Your task to perform on an android device: turn off notifications in google photos Image 0: 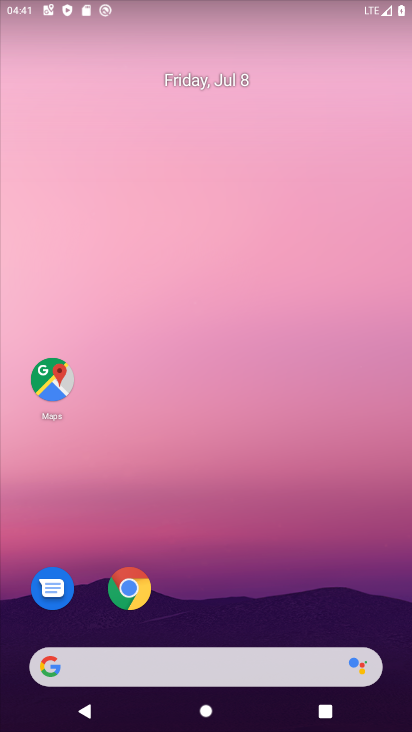
Step 0: click (45, 386)
Your task to perform on an android device: turn off notifications in google photos Image 1: 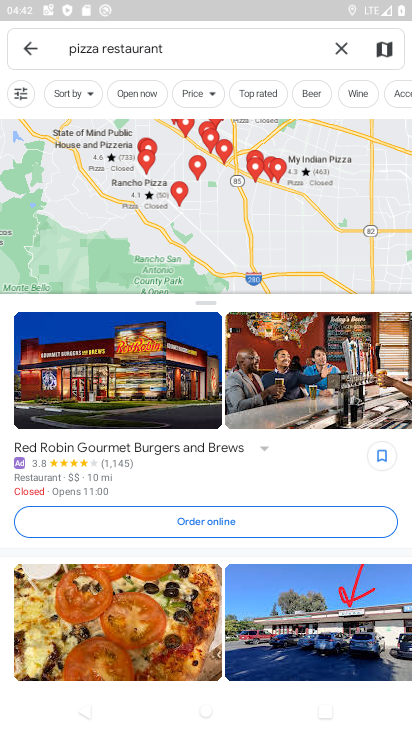
Step 1: press home button
Your task to perform on an android device: turn off notifications in google photos Image 2: 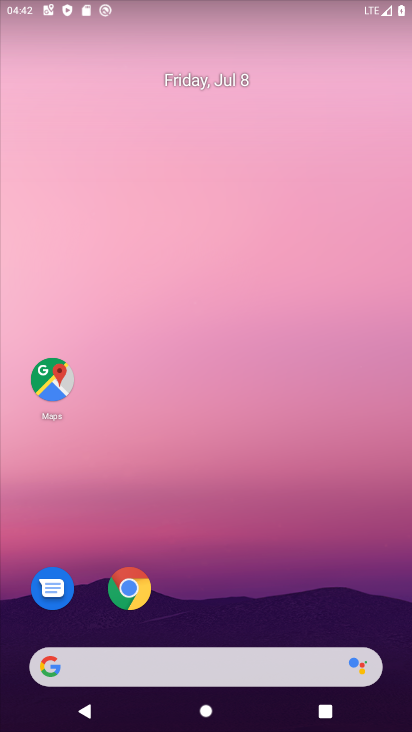
Step 2: drag from (188, 350) to (172, 114)
Your task to perform on an android device: turn off notifications in google photos Image 3: 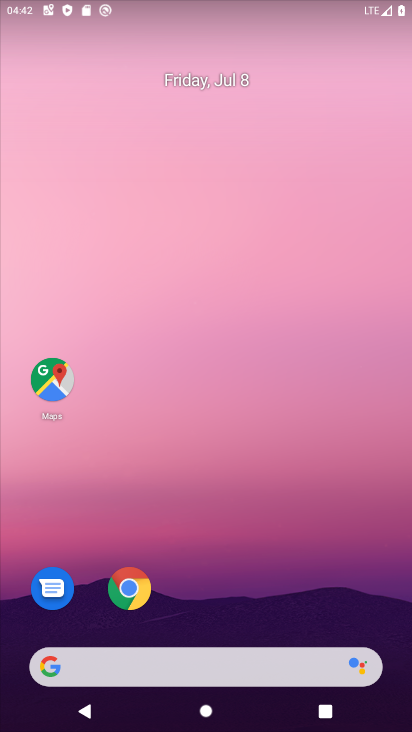
Step 3: drag from (221, 271) to (224, 232)
Your task to perform on an android device: turn off notifications in google photos Image 4: 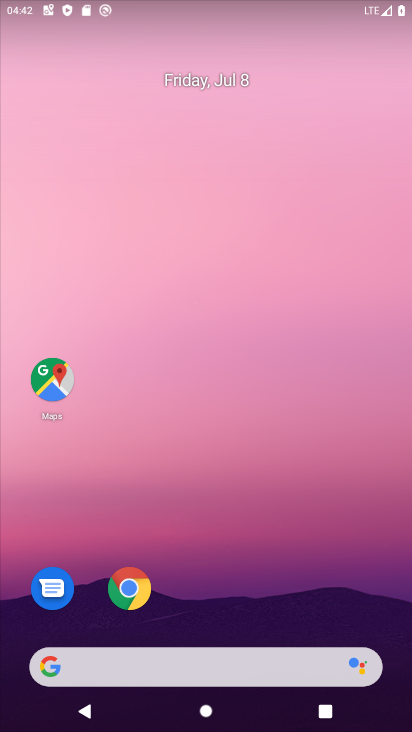
Step 4: click (174, 82)
Your task to perform on an android device: turn off notifications in google photos Image 5: 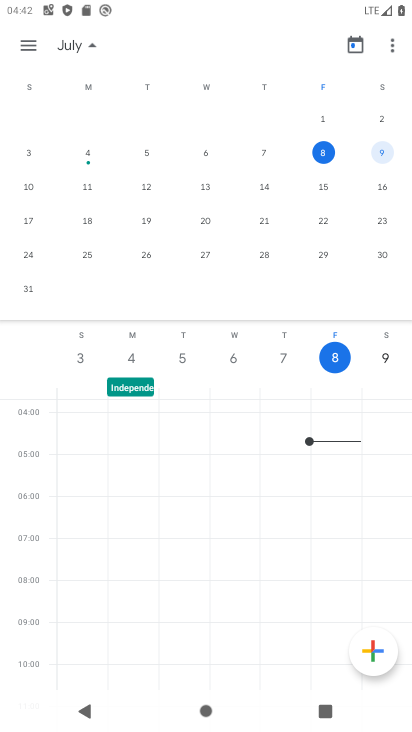
Step 5: press home button
Your task to perform on an android device: turn off notifications in google photos Image 6: 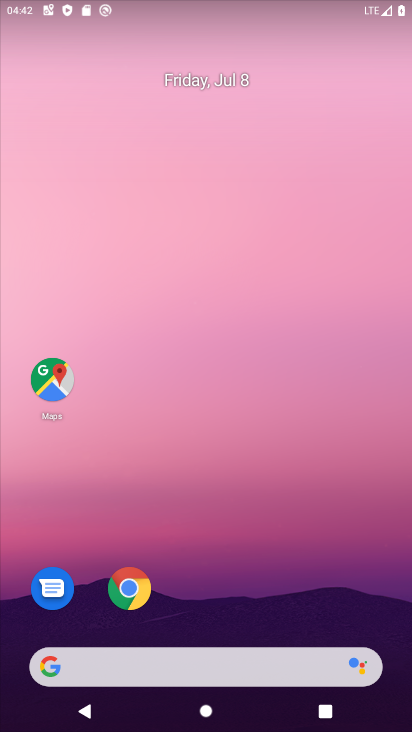
Step 6: drag from (199, 555) to (194, 33)
Your task to perform on an android device: turn off notifications in google photos Image 7: 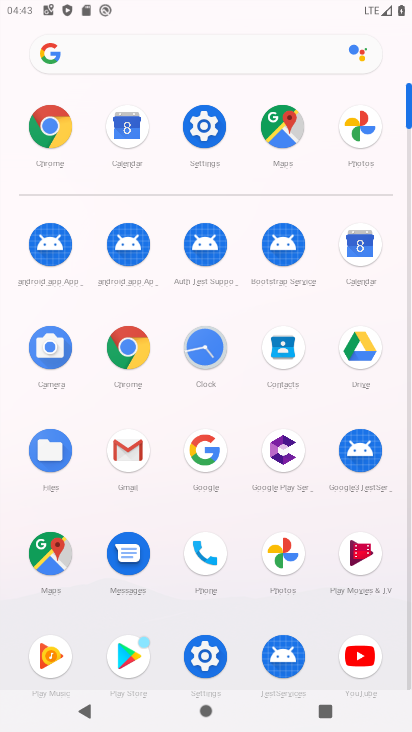
Step 7: click (204, 128)
Your task to perform on an android device: turn off notifications in google photos Image 8: 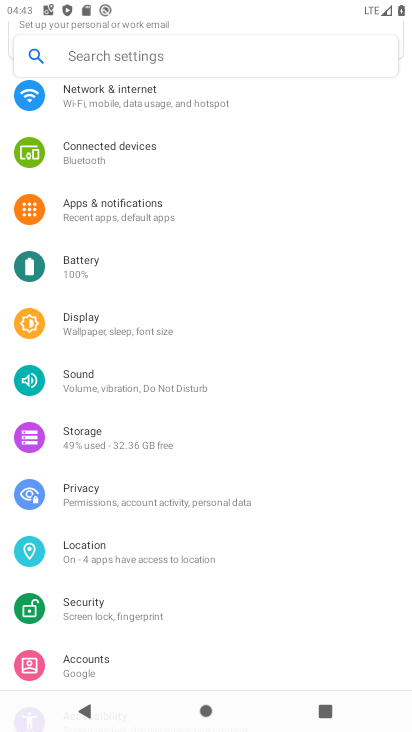
Step 8: press back button
Your task to perform on an android device: turn off notifications in google photos Image 9: 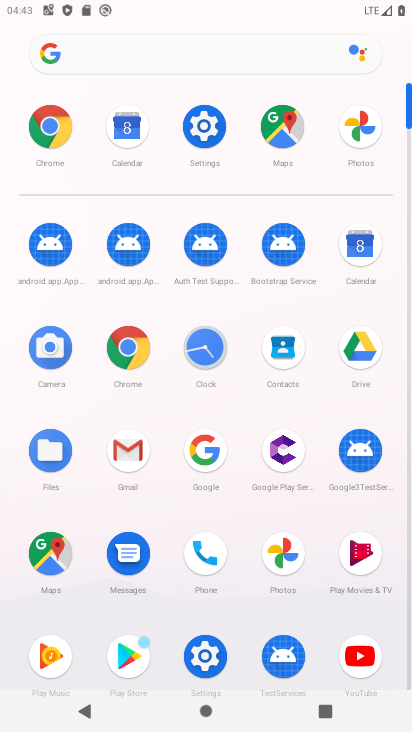
Step 9: click (284, 571)
Your task to perform on an android device: turn off notifications in google photos Image 10: 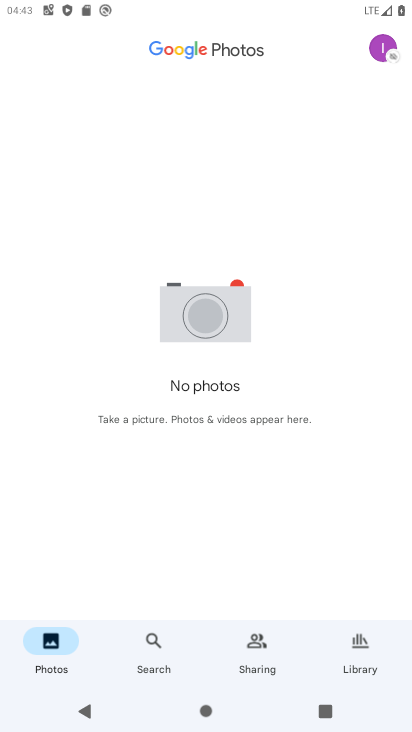
Step 10: click (38, 658)
Your task to perform on an android device: turn off notifications in google photos Image 11: 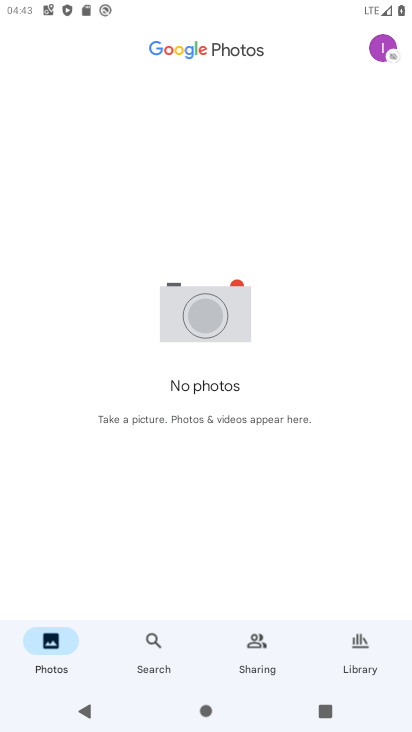
Step 11: click (382, 46)
Your task to perform on an android device: turn off notifications in google photos Image 12: 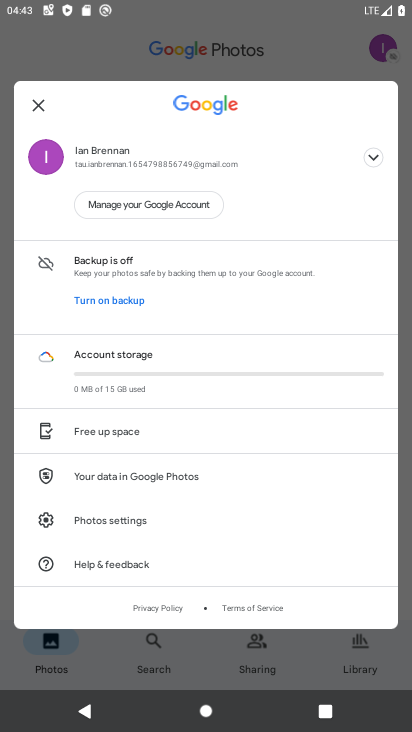
Step 12: click (117, 530)
Your task to perform on an android device: turn off notifications in google photos Image 13: 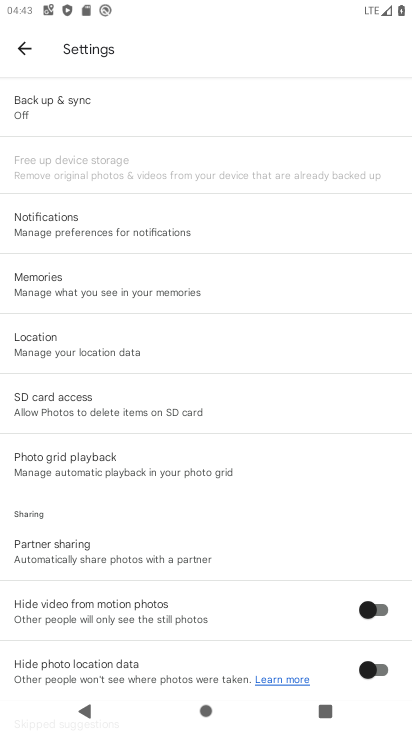
Step 13: click (145, 238)
Your task to perform on an android device: turn off notifications in google photos Image 14: 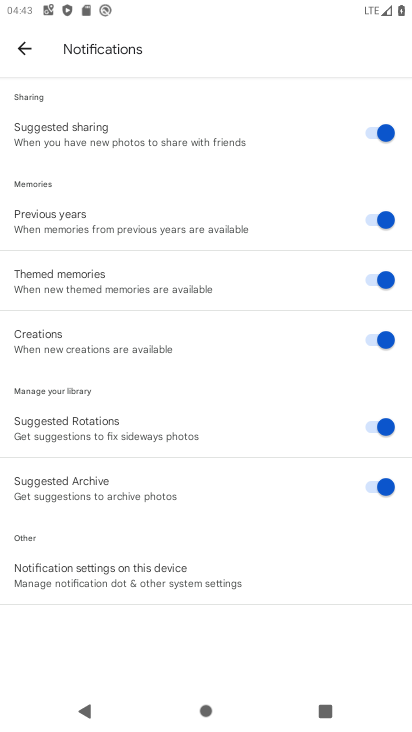
Step 14: click (27, 44)
Your task to perform on an android device: turn off notifications in google photos Image 15: 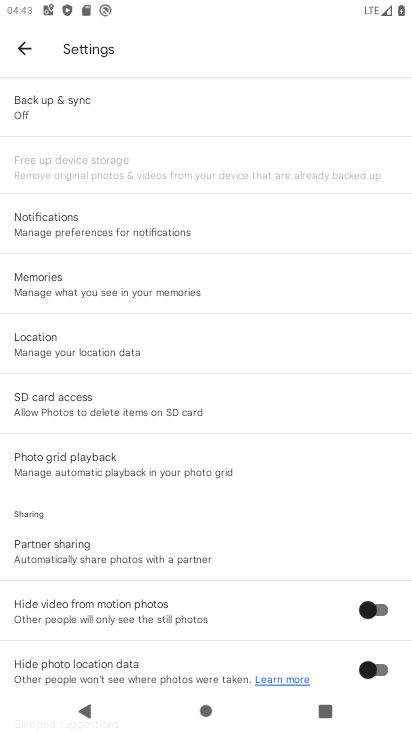
Step 15: click (86, 240)
Your task to perform on an android device: turn off notifications in google photos Image 16: 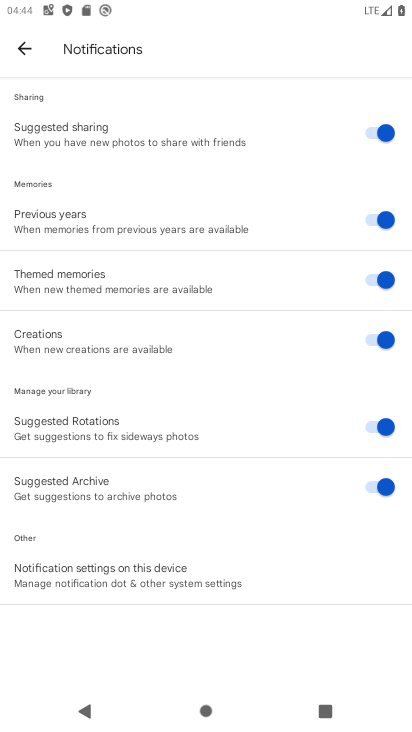
Step 16: click (373, 136)
Your task to perform on an android device: turn off notifications in google photos Image 17: 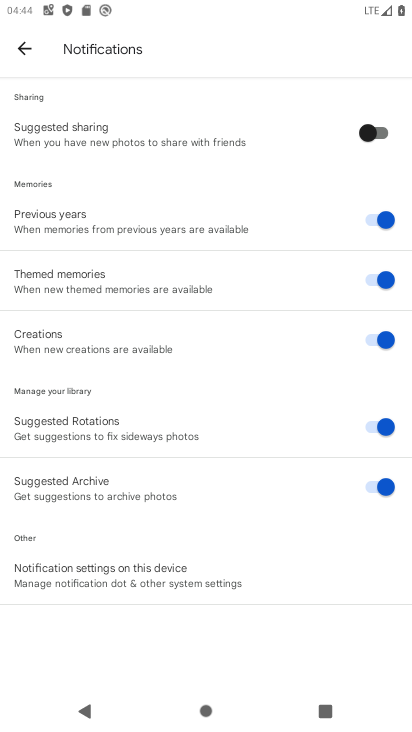
Step 17: click (368, 230)
Your task to perform on an android device: turn off notifications in google photos Image 18: 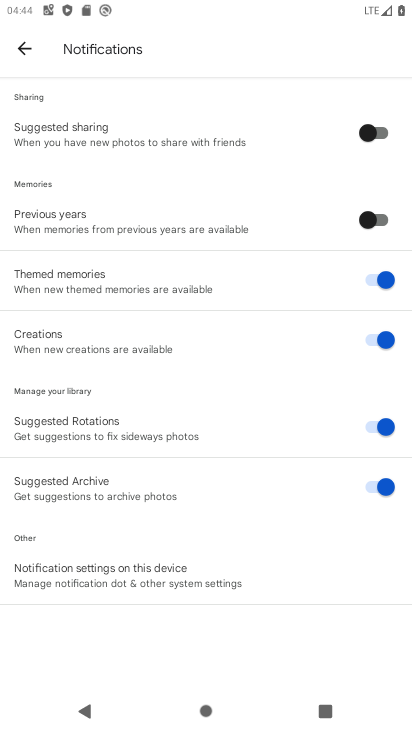
Step 18: click (378, 291)
Your task to perform on an android device: turn off notifications in google photos Image 19: 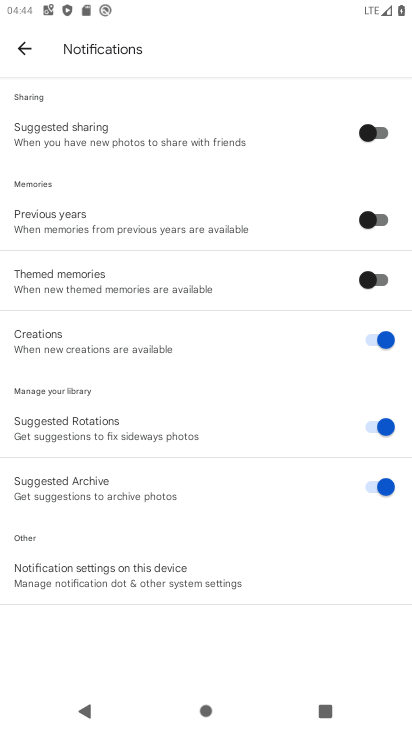
Step 19: click (371, 338)
Your task to perform on an android device: turn off notifications in google photos Image 20: 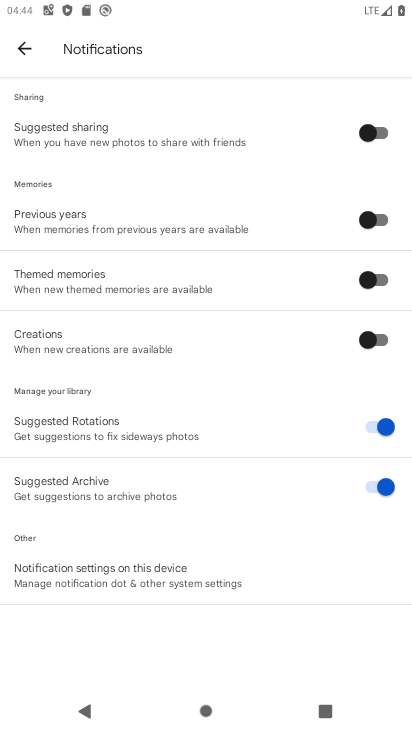
Step 20: click (372, 426)
Your task to perform on an android device: turn off notifications in google photos Image 21: 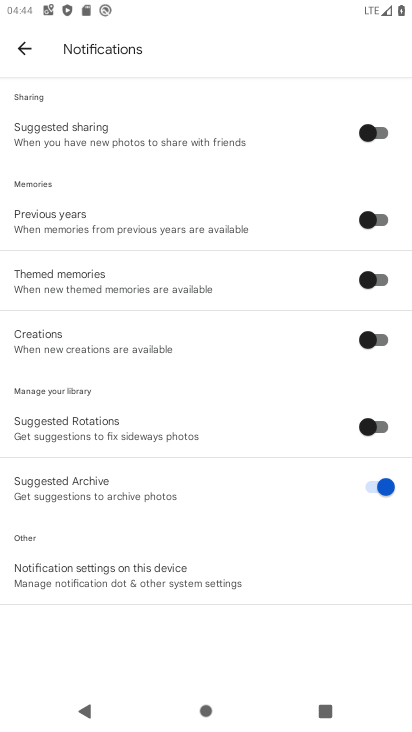
Step 21: click (374, 485)
Your task to perform on an android device: turn off notifications in google photos Image 22: 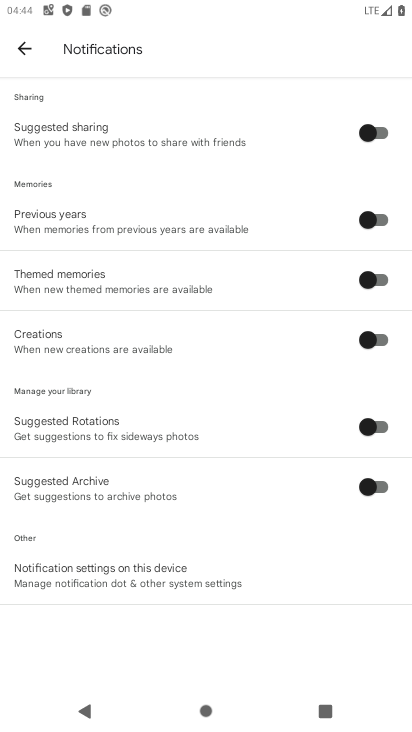
Step 22: task complete